Your task to perform on an android device: allow notifications from all sites in the chrome app Image 0: 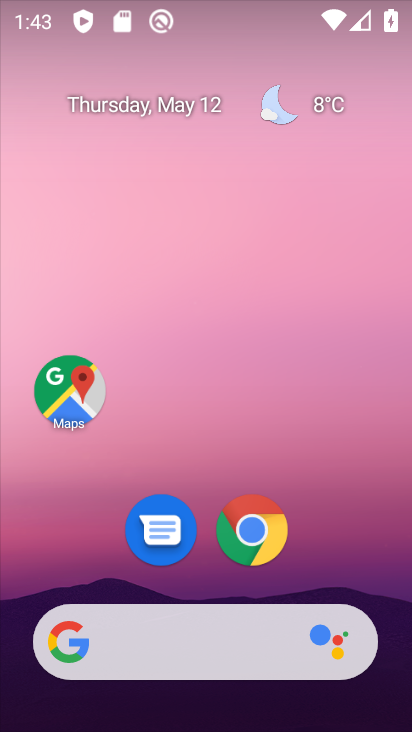
Step 0: click (259, 530)
Your task to perform on an android device: allow notifications from all sites in the chrome app Image 1: 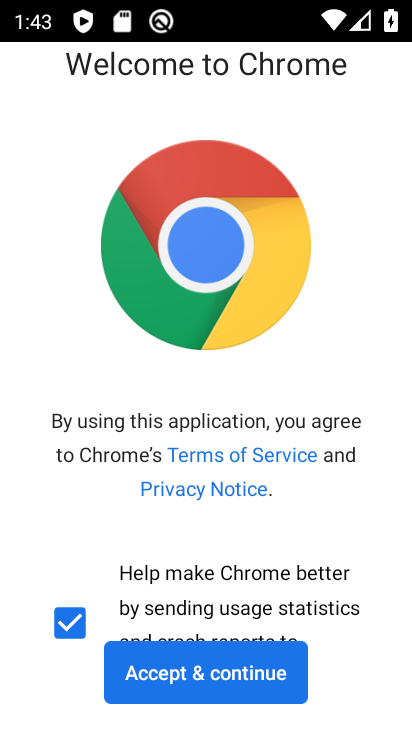
Step 1: click (187, 668)
Your task to perform on an android device: allow notifications from all sites in the chrome app Image 2: 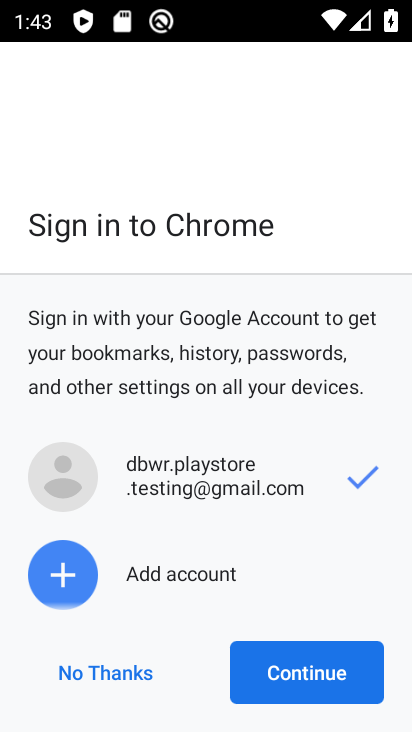
Step 2: click (119, 678)
Your task to perform on an android device: allow notifications from all sites in the chrome app Image 3: 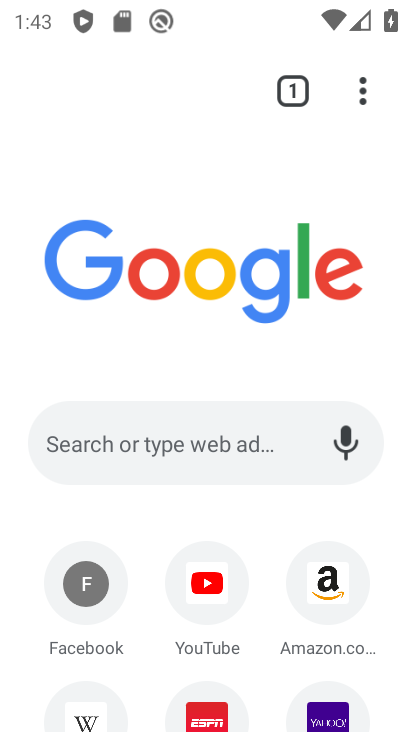
Step 3: click (363, 84)
Your task to perform on an android device: allow notifications from all sites in the chrome app Image 4: 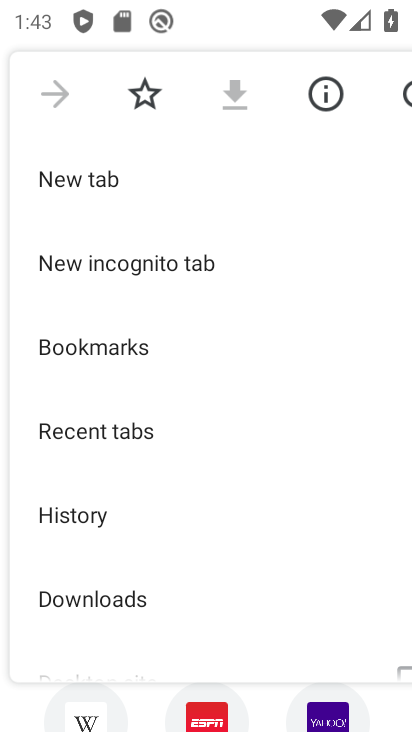
Step 4: drag from (70, 612) to (304, 79)
Your task to perform on an android device: allow notifications from all sites in the chrome app Image 5: 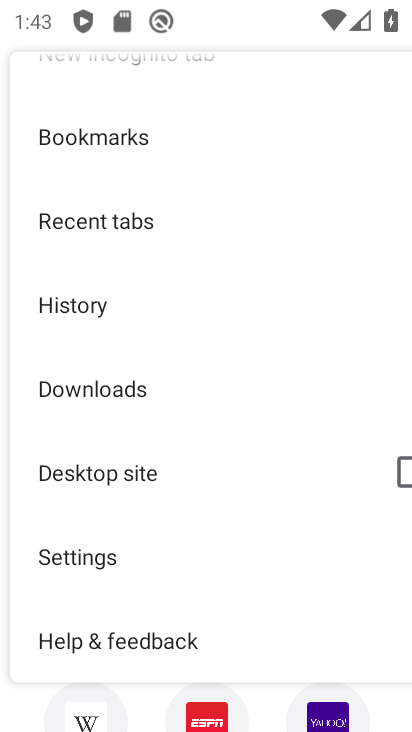
Step 5: click (68, 549)
Your task to perform on an android device: allow notifications from all sites in the chrome app Image 6: 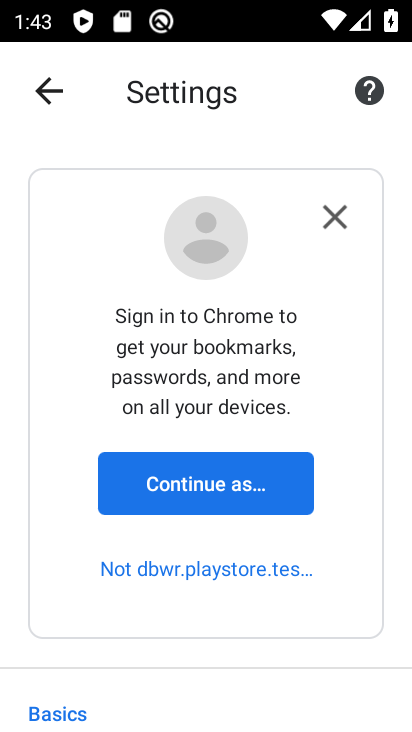
Step 6: click (339, 212)
Your task to perform on an android device: allow notifications from all sites in the chrome app Image 7: 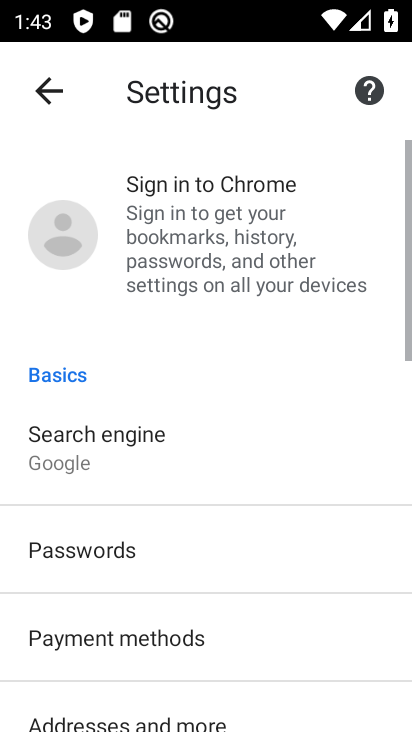
Step 7: drag from (99, 641) to (304, 103)
Your task to perform on an android device: allow notifications from all sites in the chrome app Image 8: 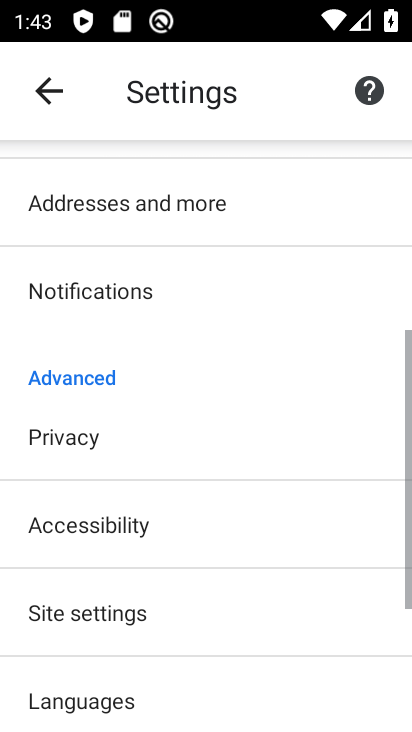
Step 8: drag from (63, 683) to (251, 298)
Your task to perform on an android device: allow notifications from all sites in the chrome app Image 9: 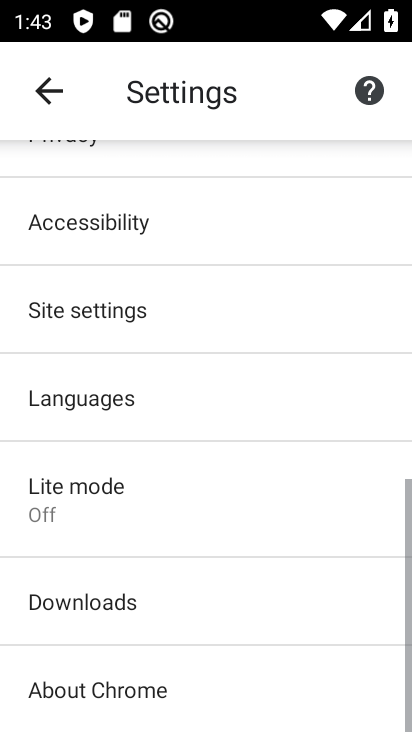
Step 9: drag from (223, 225) to (199, 606)
Your task to perform on an android device: allow notifications from all sites in the chrome app Image 10: 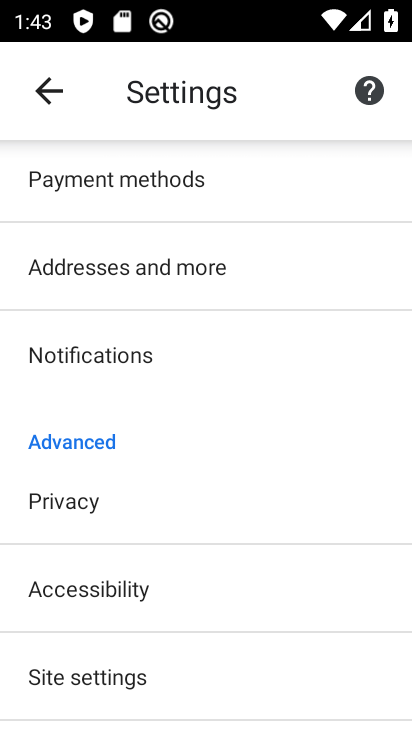
Step 10: click (108, 341)
Your task to perform on an android device: allow notifications from all sites in the chrome app Image 11: 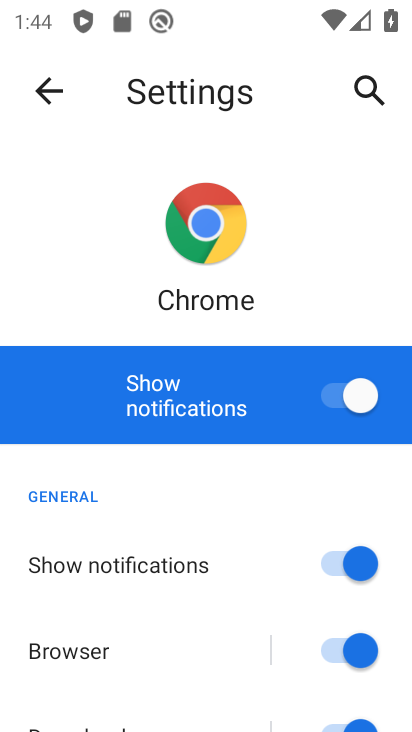
Step 11: task complete